Your task to perform on an android device: Search for Italian restaurants on Maps Image 0: 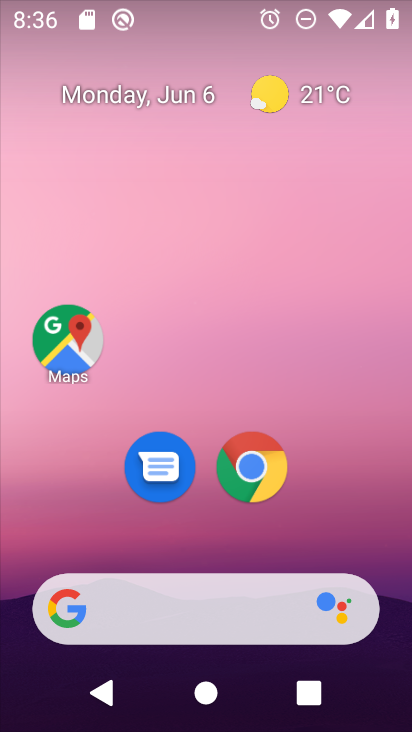
Step 0: drag from (349, 536) to (362, 100)
Your task to perform on an android device: Search for Italian restaurants on Maps Image 1: 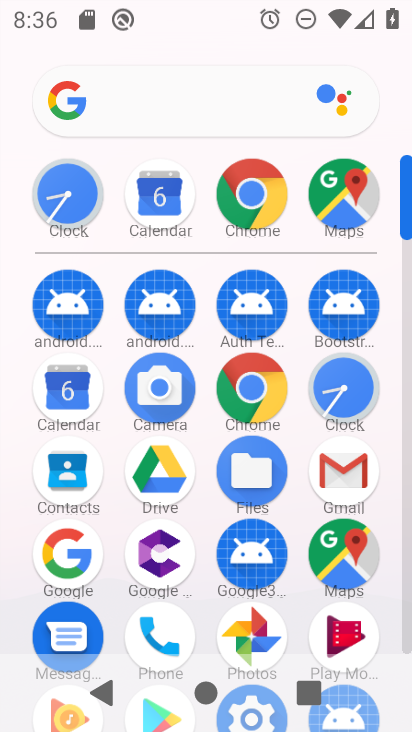
Step 1: click (352, 554)
Your task to perform on an android device: Search for Italian restaurants on Maps Image 2: 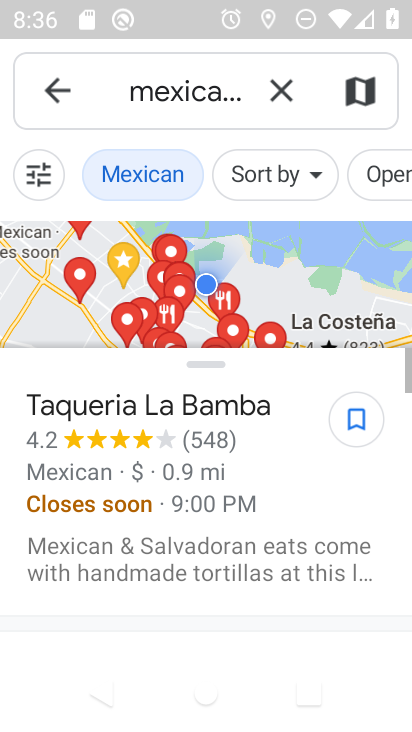
Step 2: click (287, 99)
Your task to perform on an android device: Search for Italian restaurants on Maps Image 3: 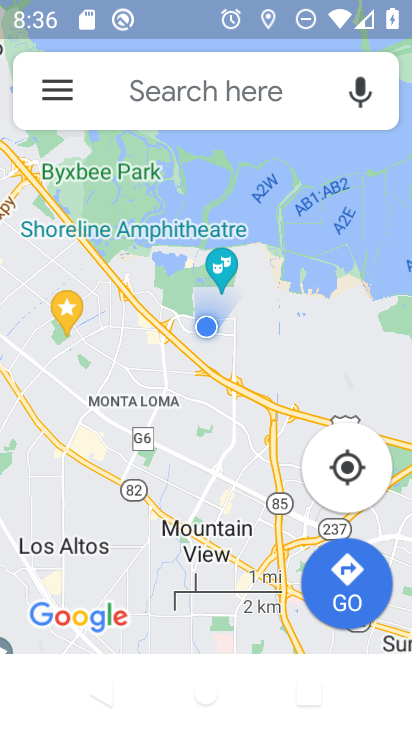
Step 3: click (197, 117)
Your task to perform on an android device: Search for Italian restaurants on Maps Image 4: 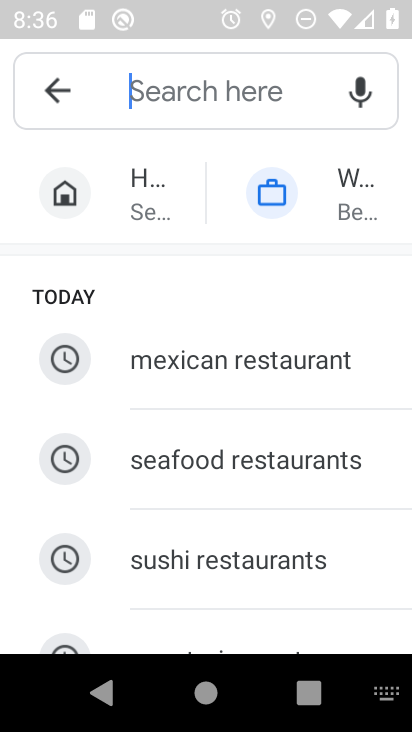
Step 4: type "italian restaurants"
Your task to perform on an android device: Search for Italian restaurants on Maps Image 5: 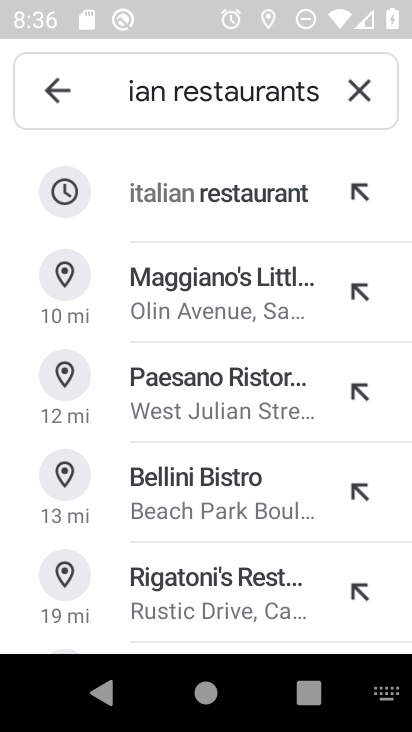
Step 5: click (277, 214)
Your task to perform on an android device: Search for Italian restaurants on Maps Image 6: 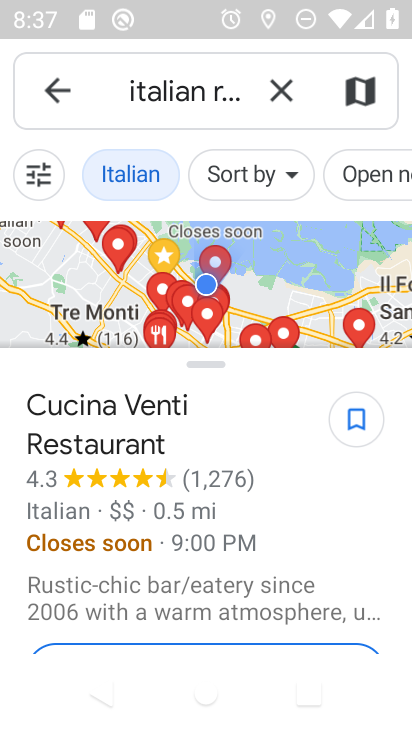
Step 6: task complete